Your task to perform on an android device: change keyboard looks Image 0: 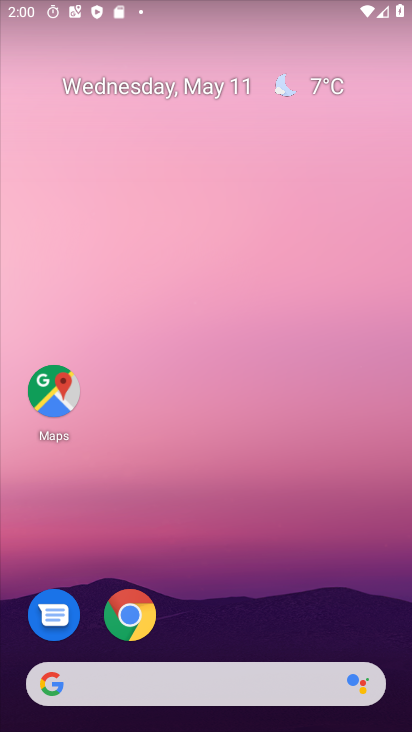
Step 0: drag from (198, 689) to (138, 162)
Your task to perform on an android device: change keyboard looks Image 1: 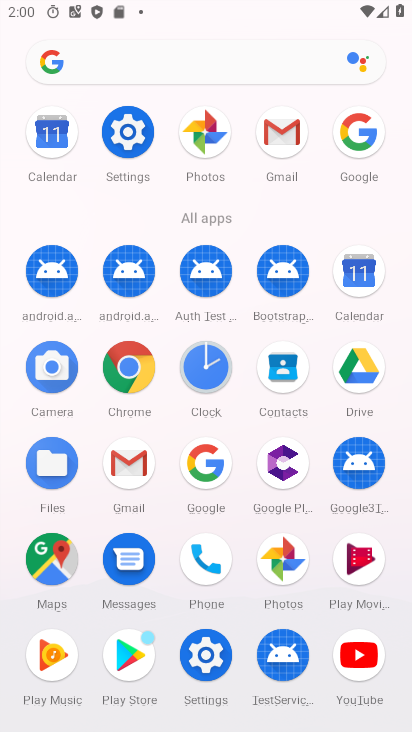
Step 1: click (137, 136)
Your task to perform on an android device: change keyboard looks Image 2: 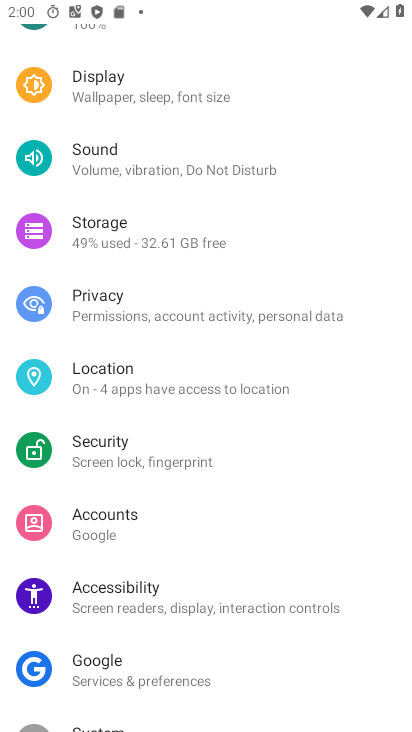
Step 2: drag from (249, 507) to (205, 15)
Your task to perform on an android device: change keyboard looks Image 3: 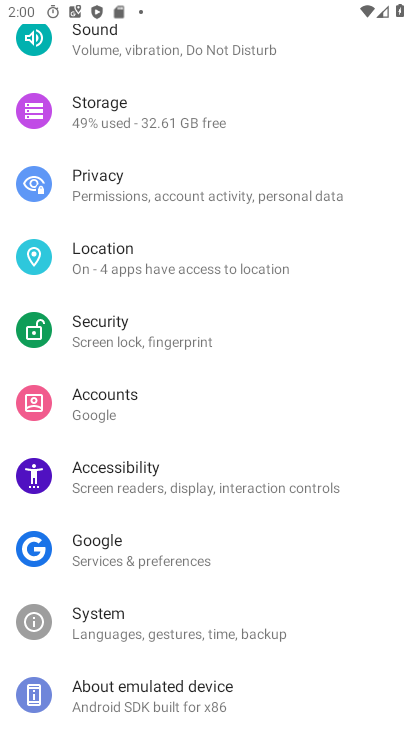
Step 3: click (174, 632)
Your task to perform on an android device: change keyboard looks Image 4: 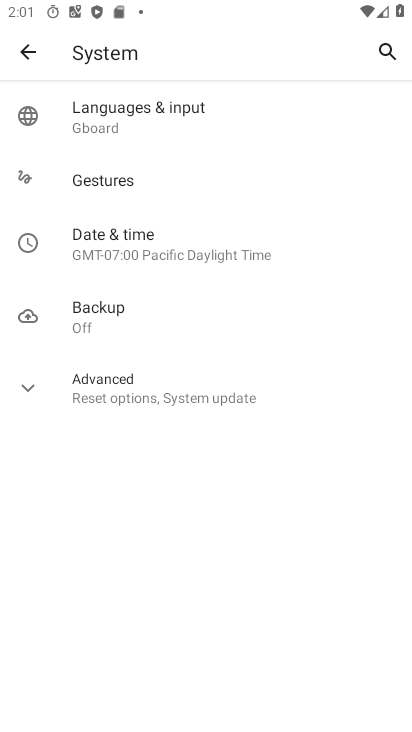
Step 4: click (106, 145)
Your task to perform on an android device: change keyboard looks Image 5: 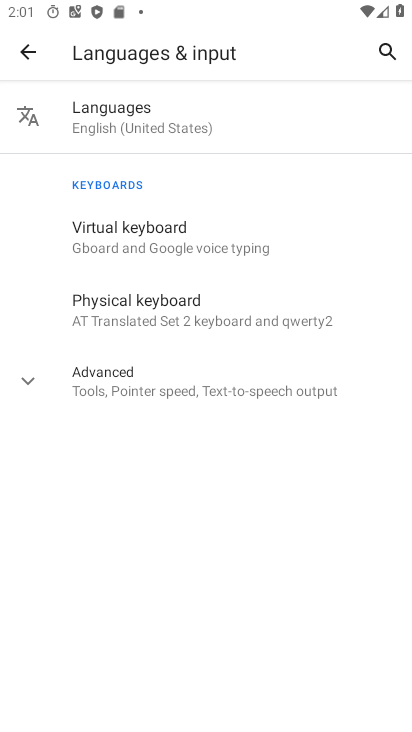
Step 5: click (141, 242)
Your task to perform on an android device: change keyboard looks Image 6: 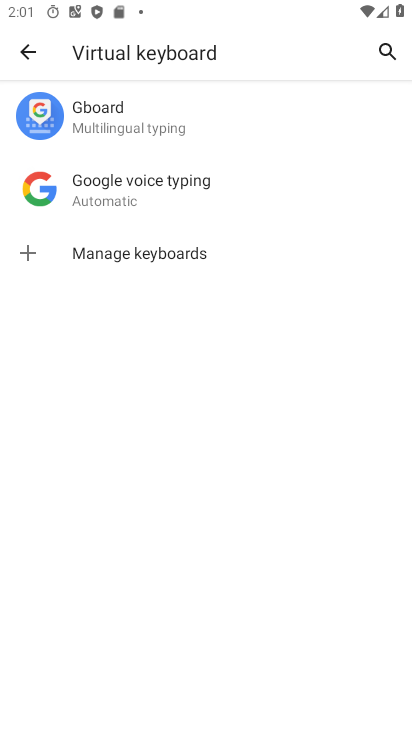
Step 6: click (151, 130)
Your task to perform on an android device: change keyboard looks Image 7: 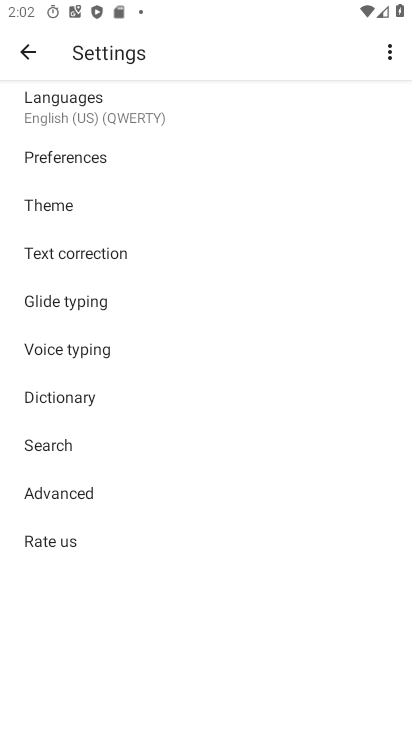
Step 7: click (78, 205)
Your task to perform on an android device: change keyboard looks Image 8: 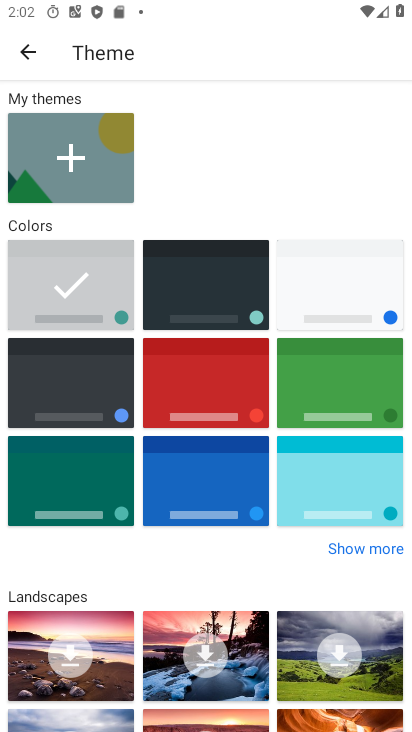
Step 8: click (193, 416)
Your task to perform on an android device: change keyboard looks Image 9: 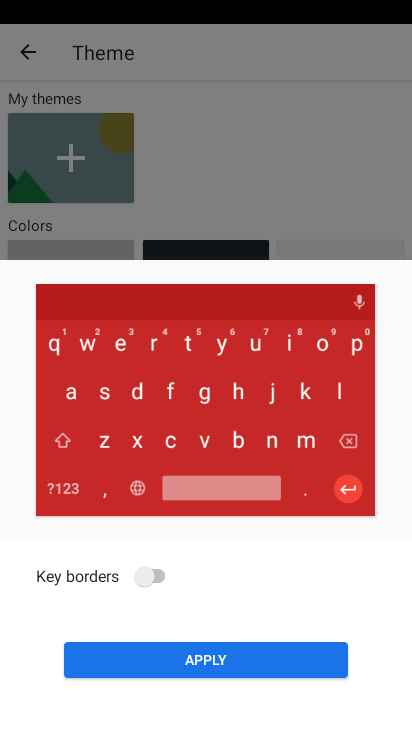
Step 9: click (277, 673)
Your task to perform on an android device: change keyboard looks Image 10: 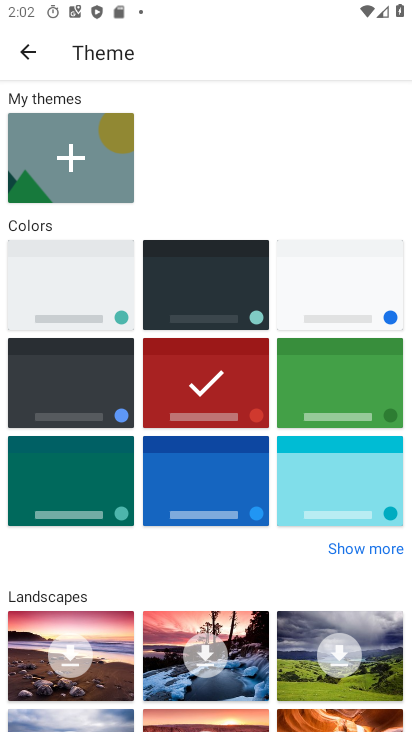
Step 10: task complete